Your task to perform on an android device: delete the emails in spam in the gmail app Image 0: 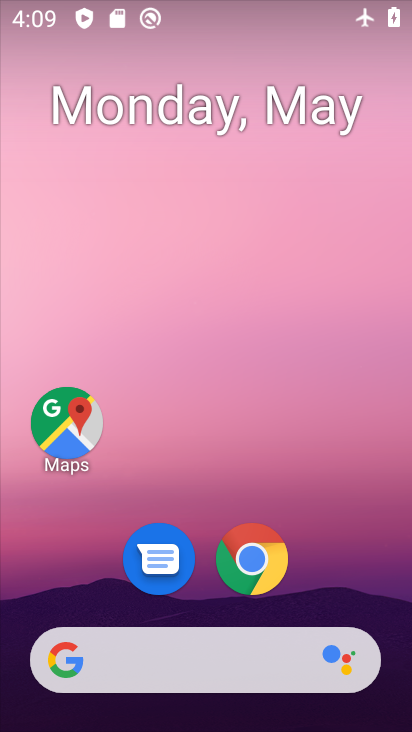
Step 0: drag from (278, 660) to (283, 4)
Your task to perform on an android device: delete the emails in spam in the gmail app Image 1: 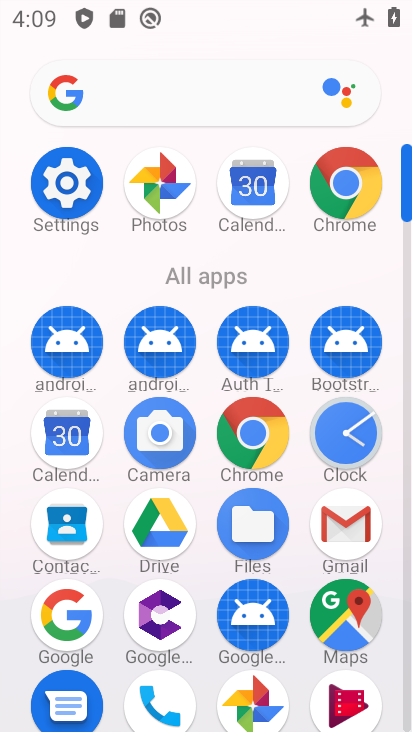
Step 1: click (336, 527)
Your task to perform on an android device: delete the emails in spam in the gmail app Image 2: 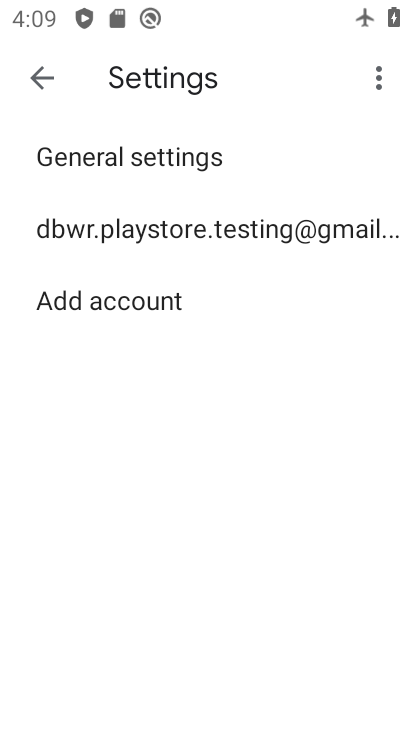
Step 2: press back button
Your task to perform on an android device: delete the emails in spam in the gmail app Image 3: 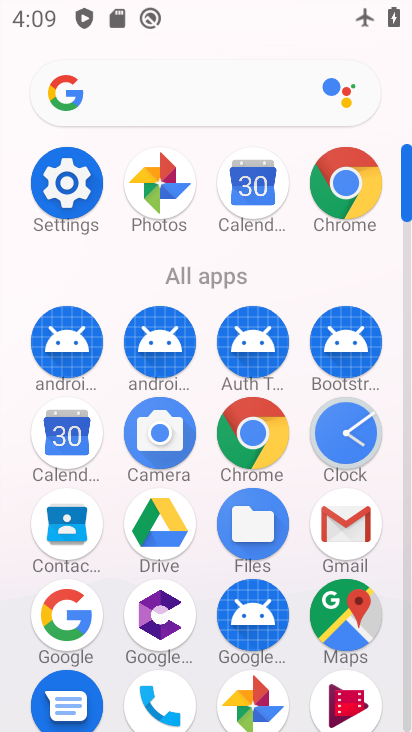
Step 3: click (349, 529)
Your task to perform on an android device: delete the emails in spam in the gmail app Image 4: 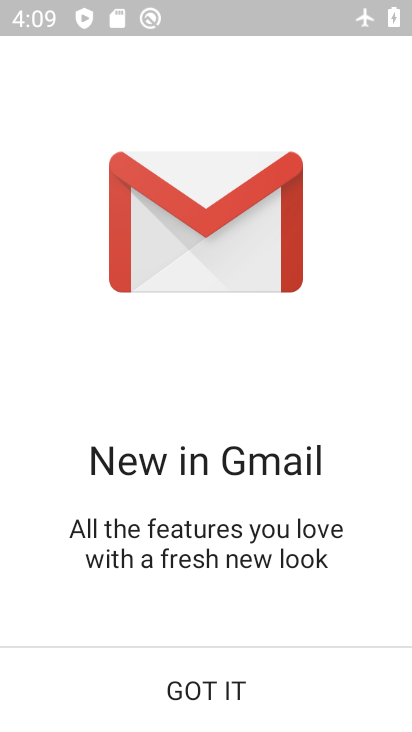
Step 4: click (194, 702)
Your task to perform on an android device: delete the emails in spam in the gmail app Image 5: 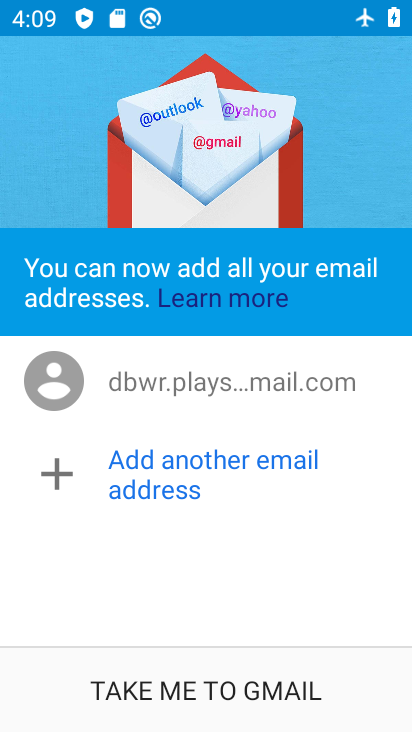
Step 5: click (244, 691)
Your task to perform on an android device: delete the emails in spam in the gmail app Image 6: 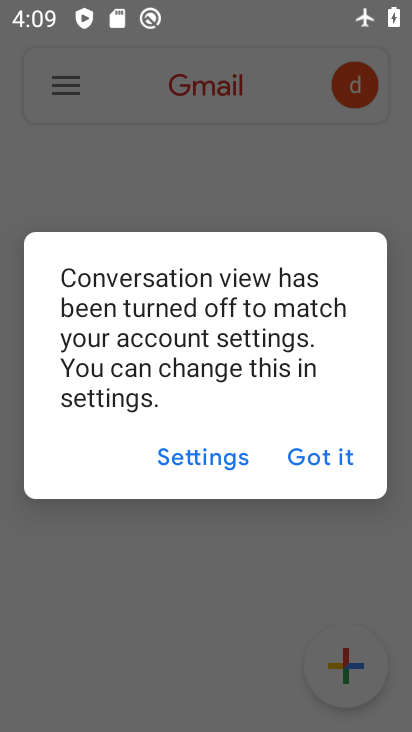
Step 6: click (331, 451)
Your task to perform on an android device: delete the emails in spam in the gmail app Image 7: 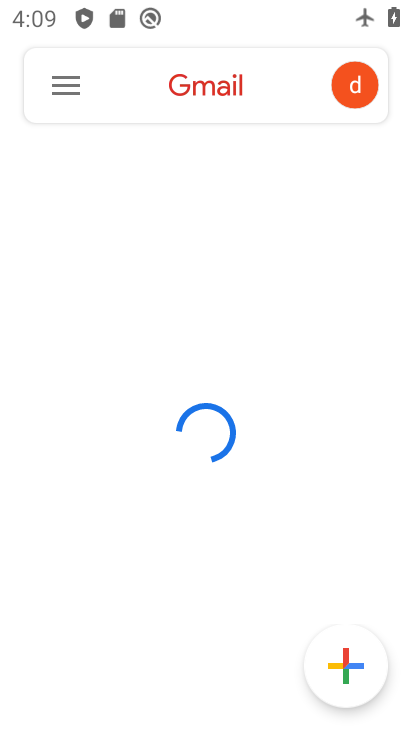
Step 7: click (65, 87)
Your task to perform on an android device: delete the emails in spam in the gmail app Image 8: 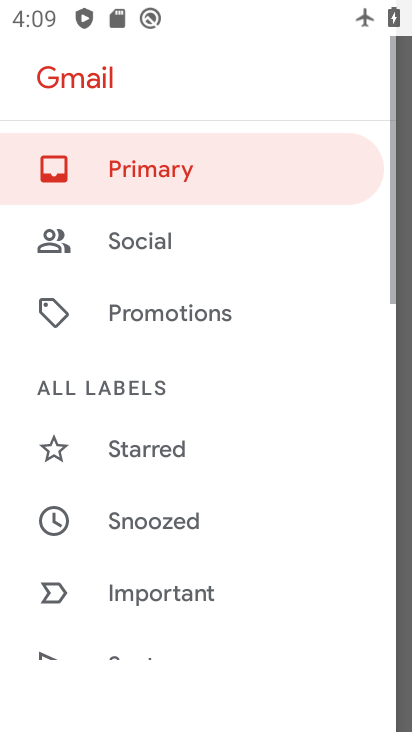
Step 8: click (144, 390)
Your task to perform on an android device: delete the emails in spam in the gmail app Image 9: 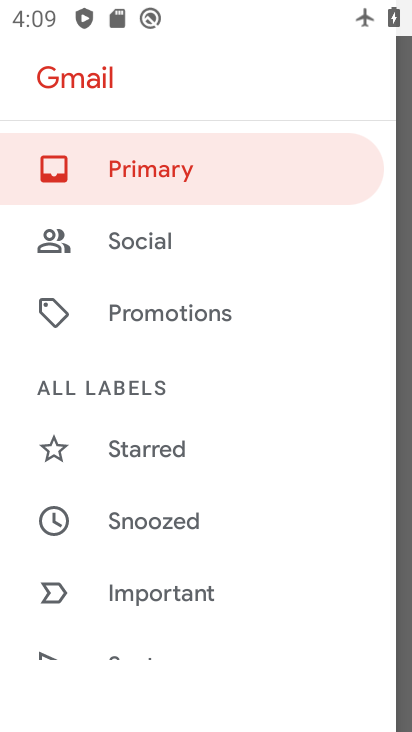
Step 9: drag from (271, 590) to (238, 80)
Your task to perform on an android device: delete the emails in spam in the gmail app Image 10: 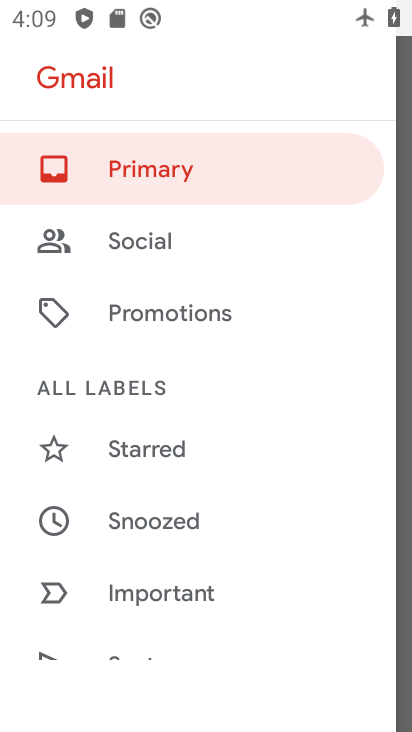
Step 10: drag from (164, 611) to (166, 18)
Your task to perform on an android device: delete the emails in spam in the gmail app Image 11: 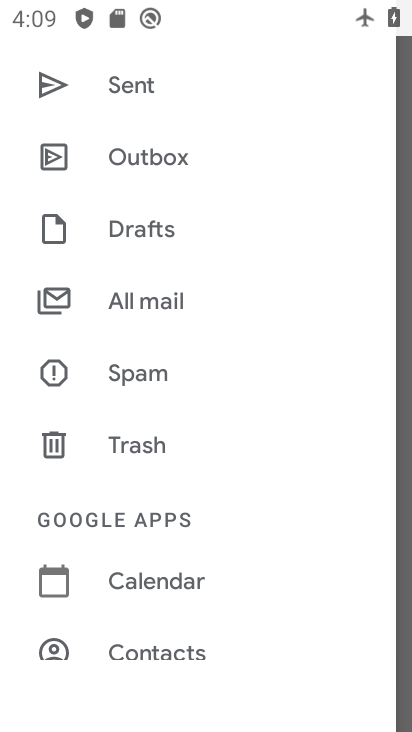
Step 11: click (166, 391)
Your task to perform on an android device: delete the emails in spam in the gmail app Image 12: 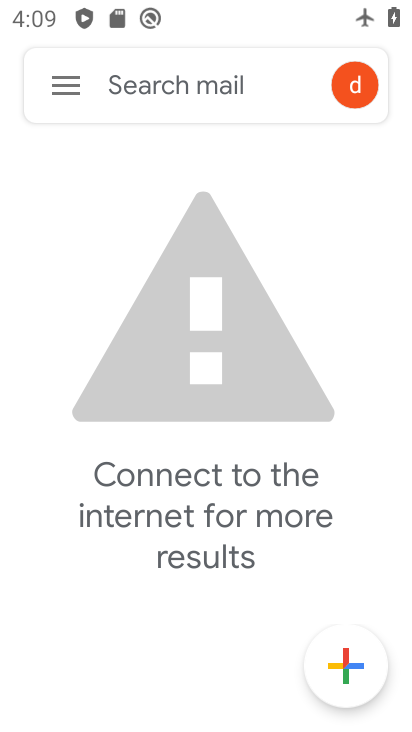
Step 12: task complete